Your task to perform on an android device: What's the weather today? Image 0: 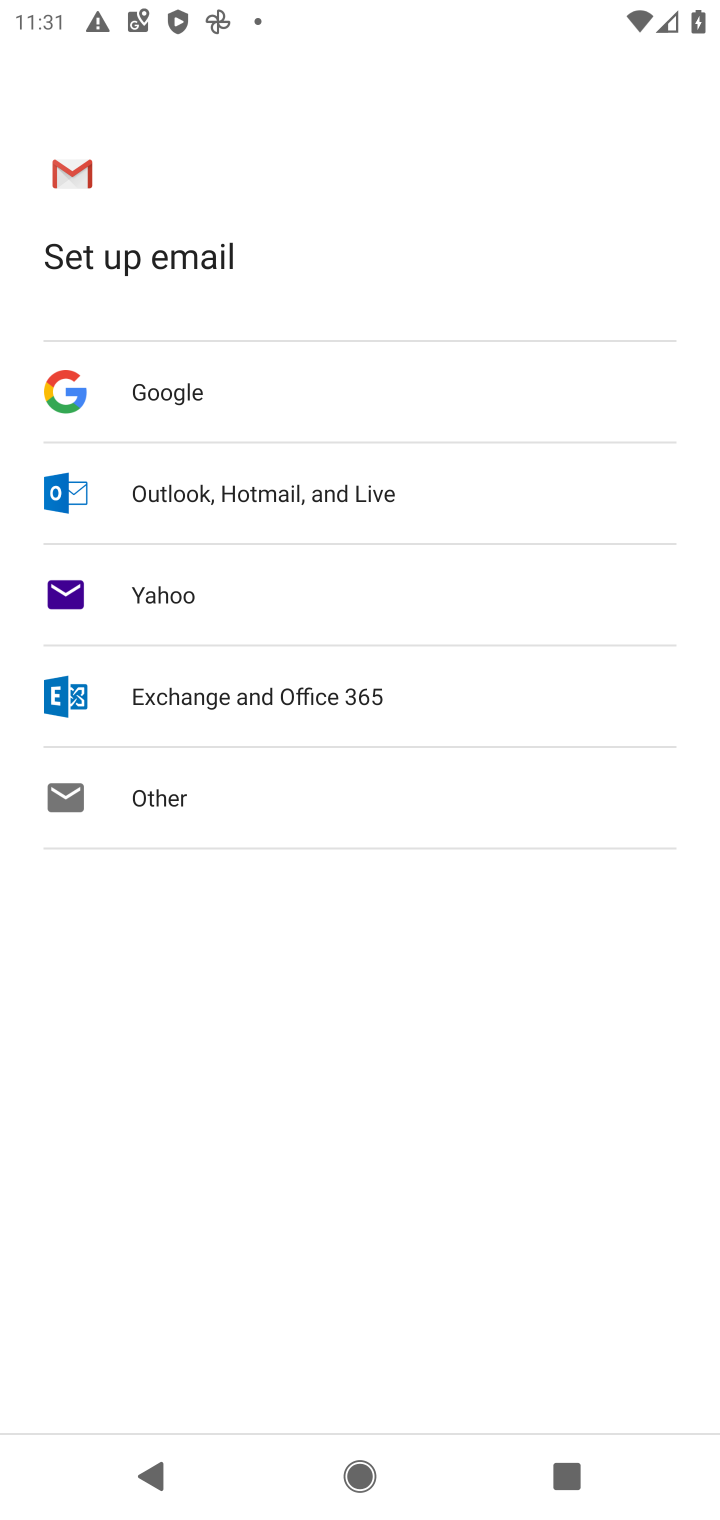
Step 0: press home button
Your task to perform on an android device: What's the weather today? Image 1: 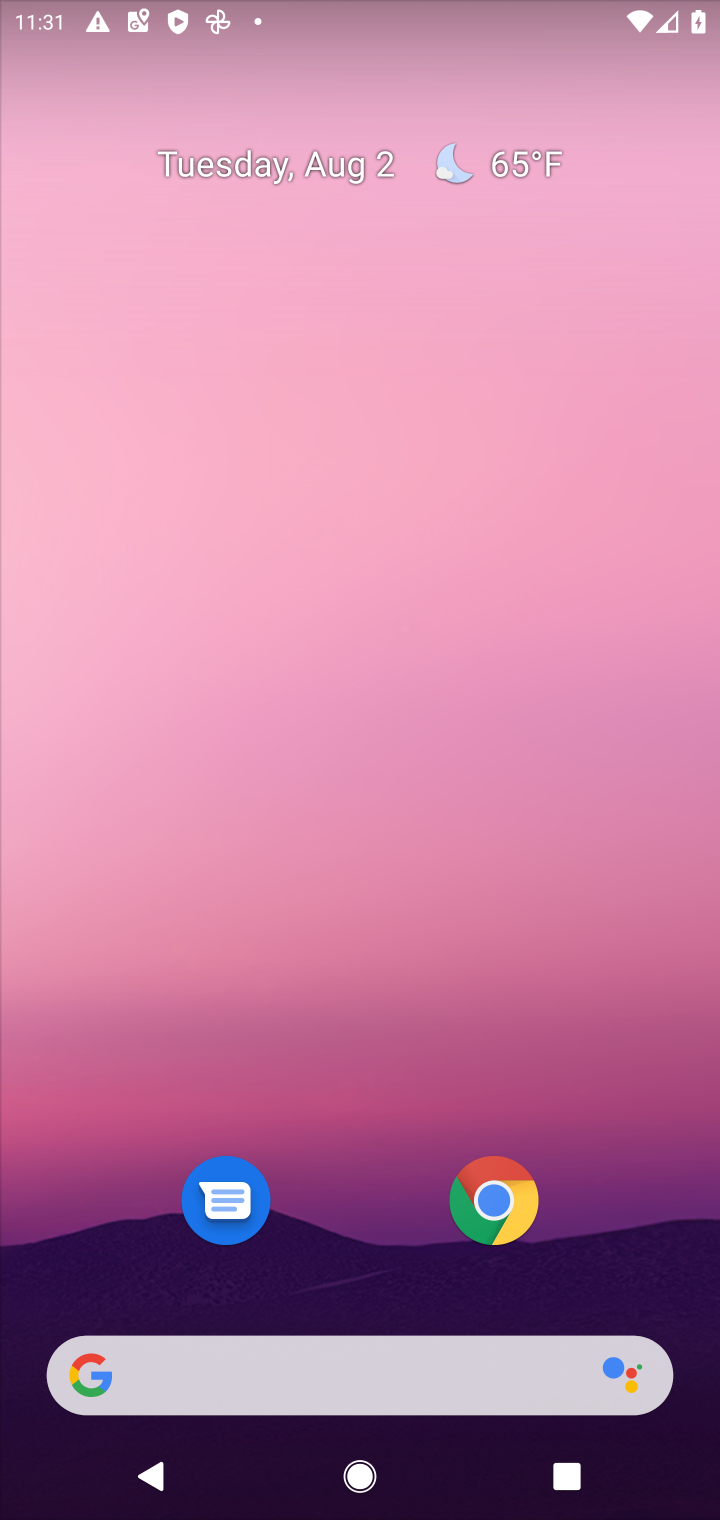
Step 1: click (494, 161)
Your task to perform on an android device: What's the weather today? Image 2: 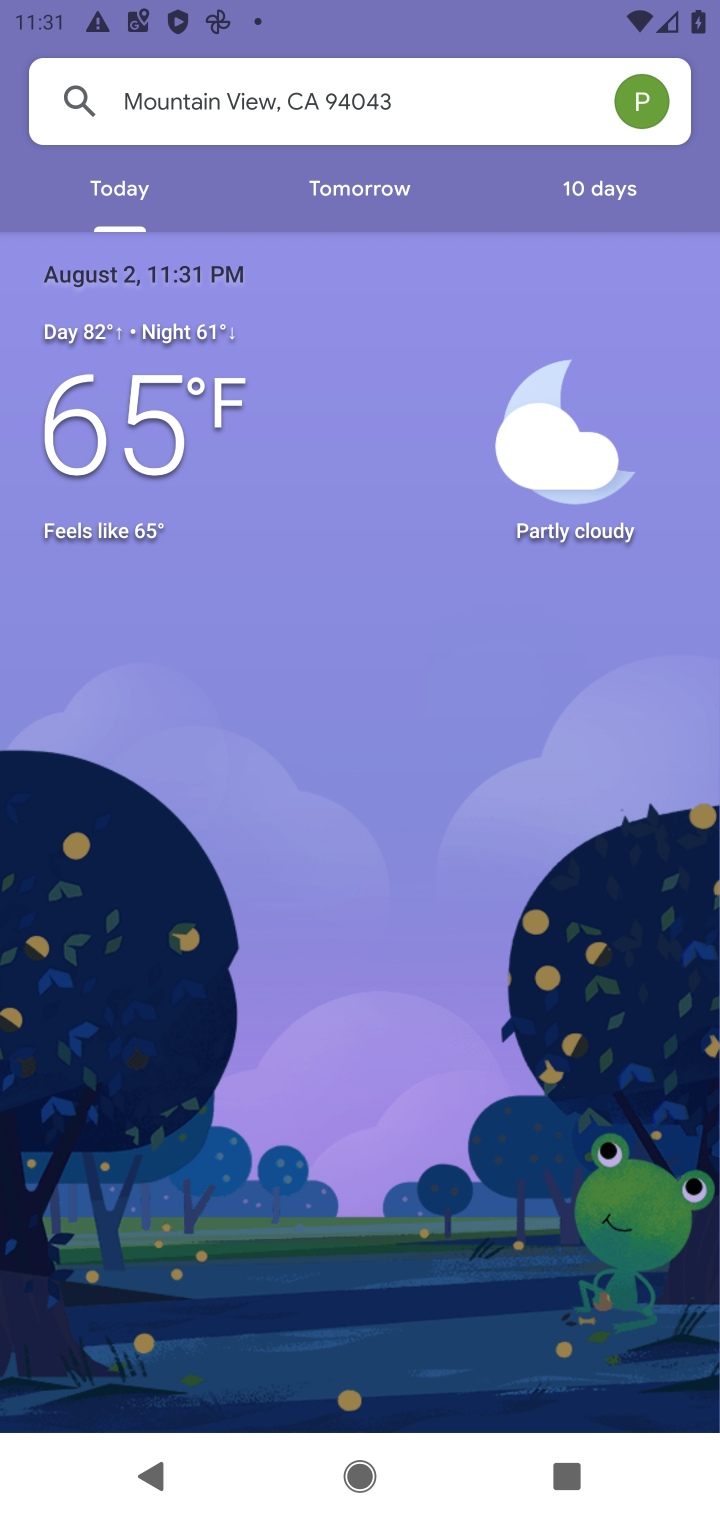
Step 2: task complete